Your task to perform on an android device: toggle show notifications on the lock screen Image 0: 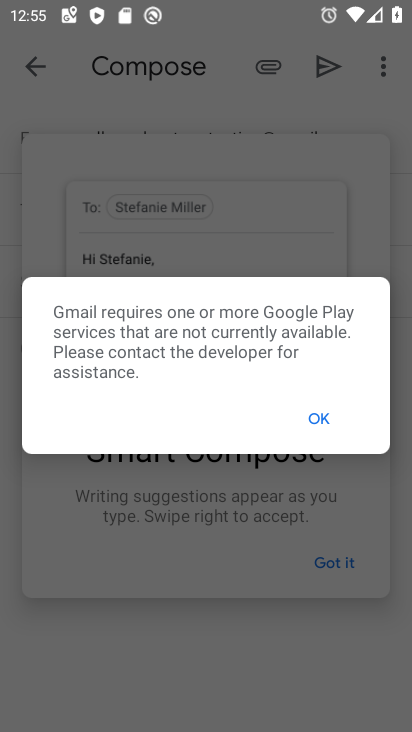
Step 0: press home button
Your task to perform on an android device: toggle show notifications on the lock screen Image 1: 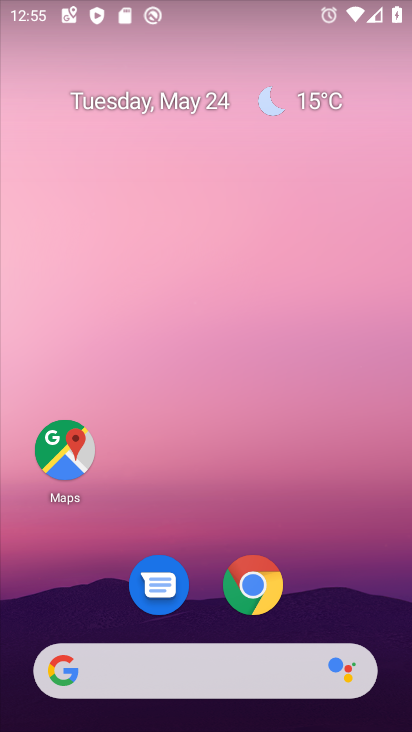
Step 1: drag from (326, 586) to (381, 58)
Your task to perform on an android device: toggle show notifications on the lock screen Image 2: 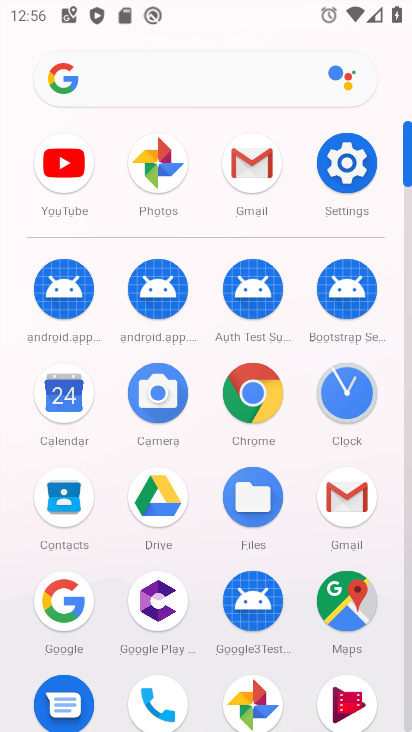
Step 2: click (339, 173)
Your task to perform on an android device: toggle show notifications on the lock screen Image 3: 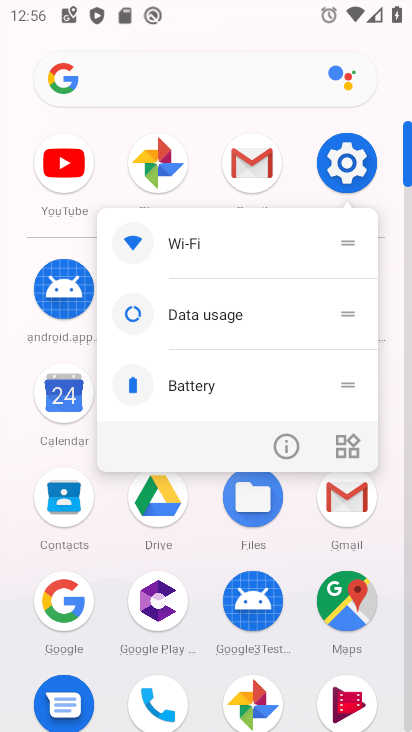
Step 3: click (347, 157)
Your task to perform on an android device: toggle show notifications on the lock screen Image 4: 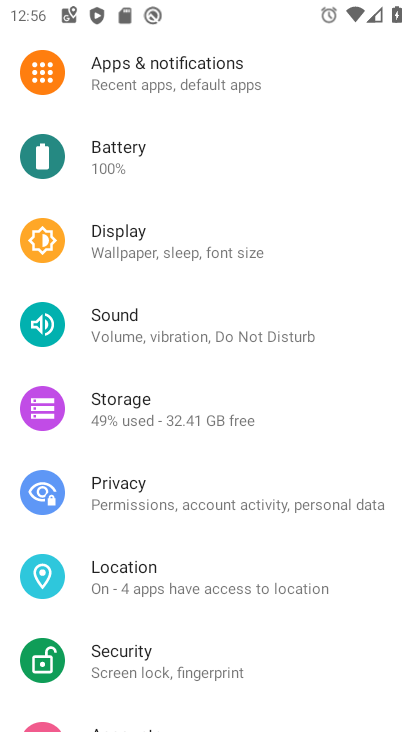
Step 4: drag from (296, 260) to (233, 566)
Your task to perform on an android device: toggle show notifications on the lock screen Image 5: 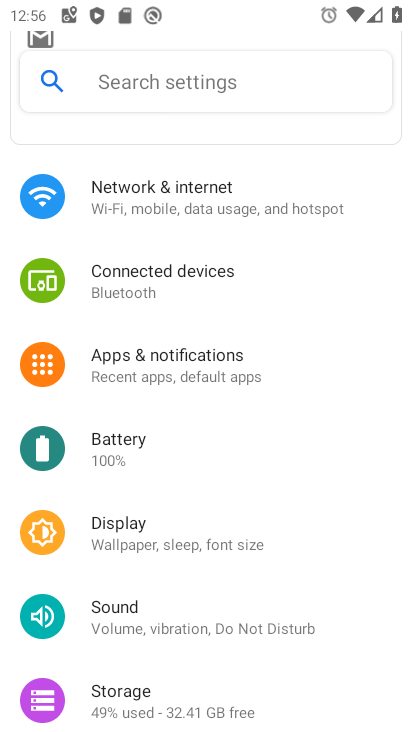
Step 5: click (218, 361)
Your task to perform on an android device: toggle show notifications on the lock screen Image 6: 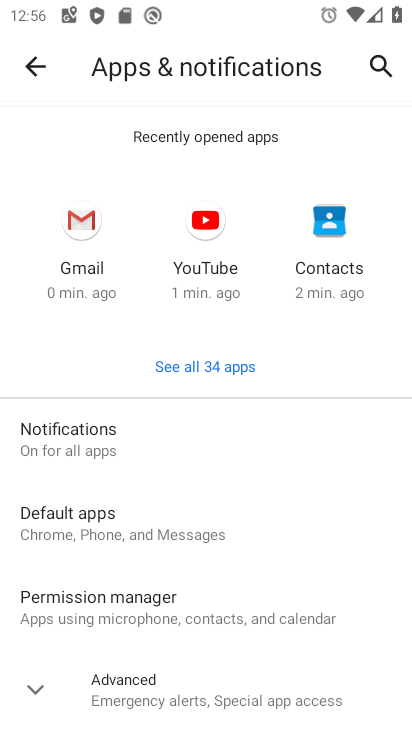
Step 6: click (219, 440)
Your task to perform on an android device: toggle show notifications on the lock screen Image 7: 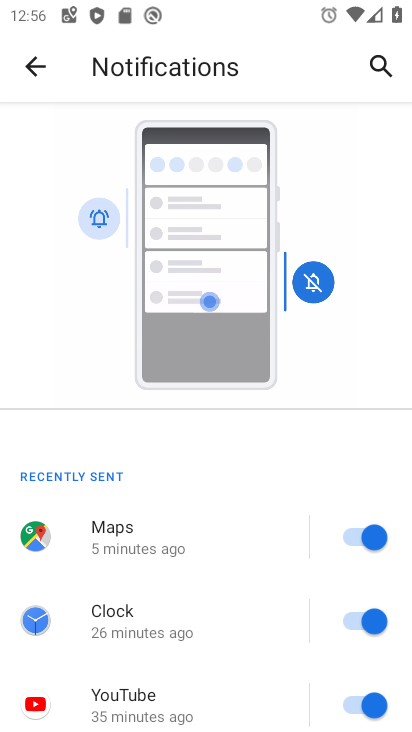
Step 7: drag from (224, 620) to (247, 100)
Your task to perform on an android device: toggle show notifications on the lock screen Image 8: 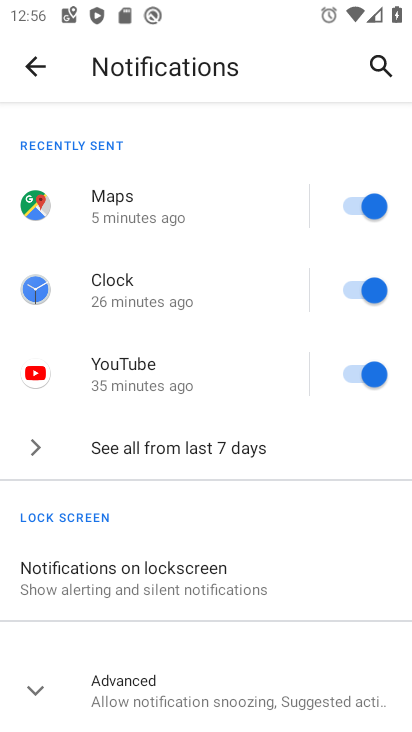
Step 8: click (203, 576)
Your task to perform on an android device: toggle show notifications on the lock screen Image 9: 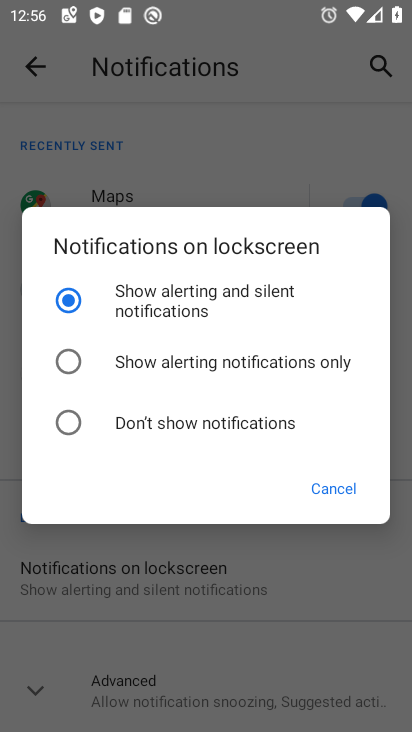
Step 9: click (73, 418)
Your task to perform on an android device: toggle show notifications on the lock screen Image 10: 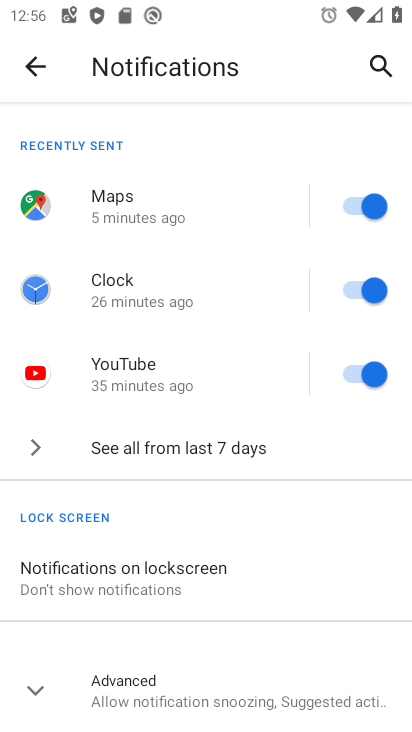
Step 10: task complete